Your task to perform on an android device: Search for the new ikea dresser Image 0: 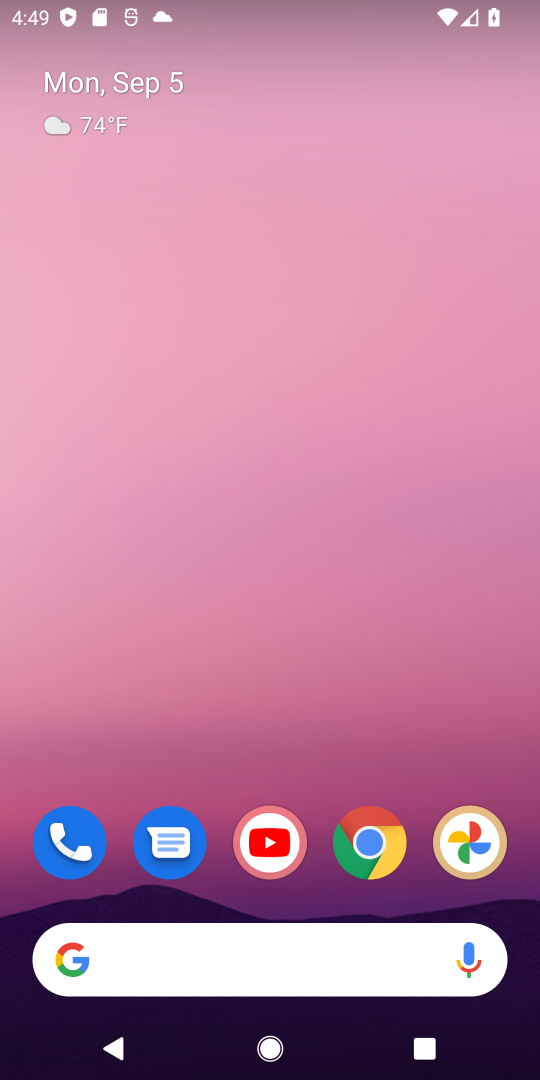
Step 0: click (367, 844)
Your task to perform on an android device: Search for the new ikea dresser Image 1: 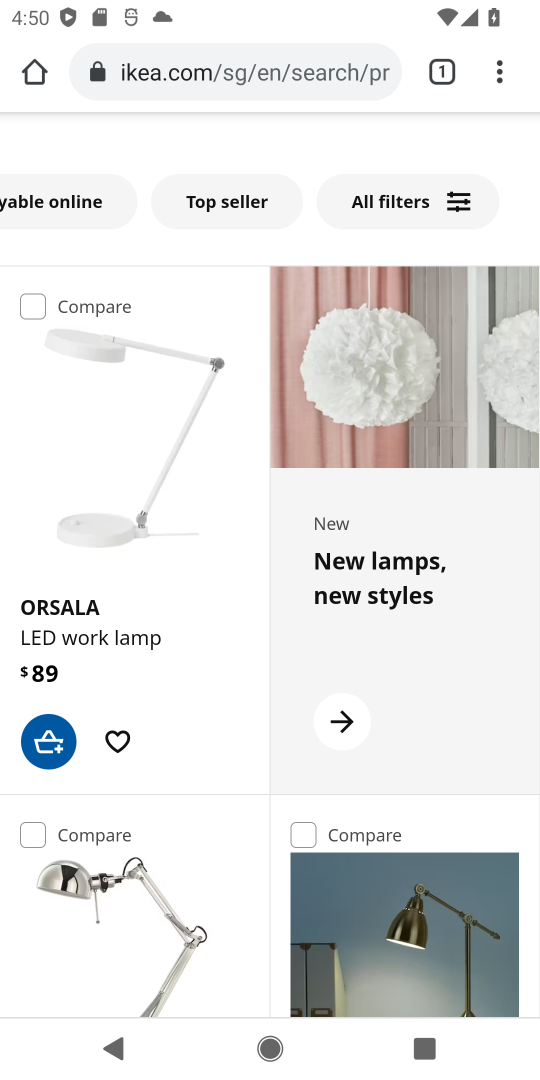
Step 1: click (332, 63)
Your task to perform on an android device: Search for the new ikea dresser Image 2: 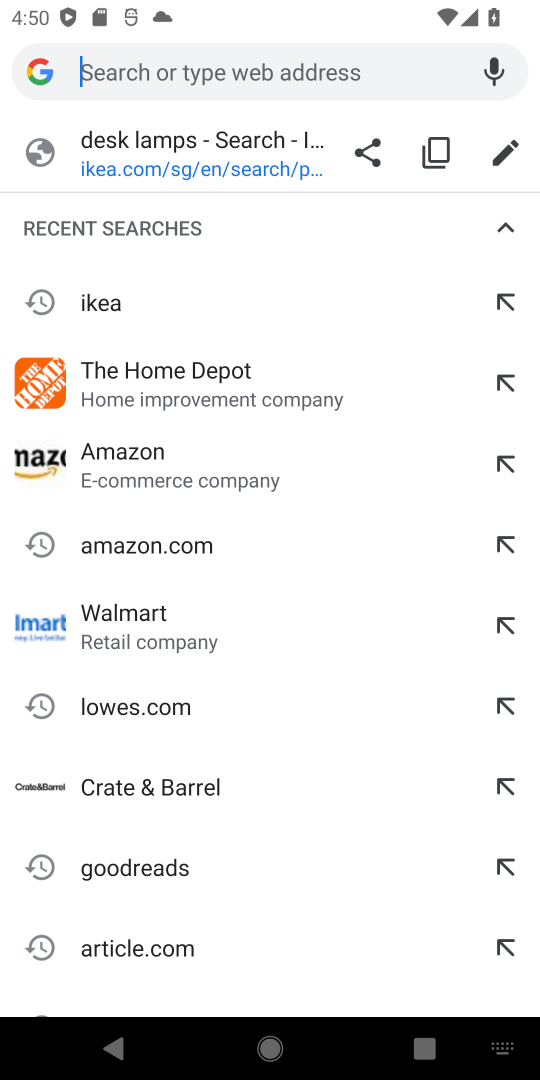
Step 2: click (283, 77)
Your task to perform on an android device: Search for the new ikea dresser Image 3: 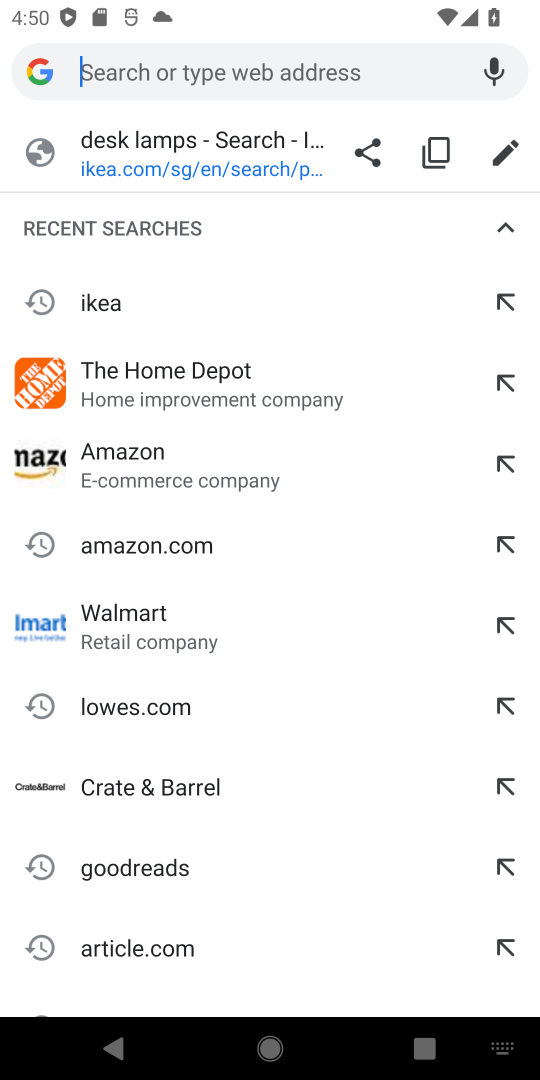
Step 3: type "new ikea dresser"
Your task to perform on an android device: Search for the new ikea dresser Image 4: 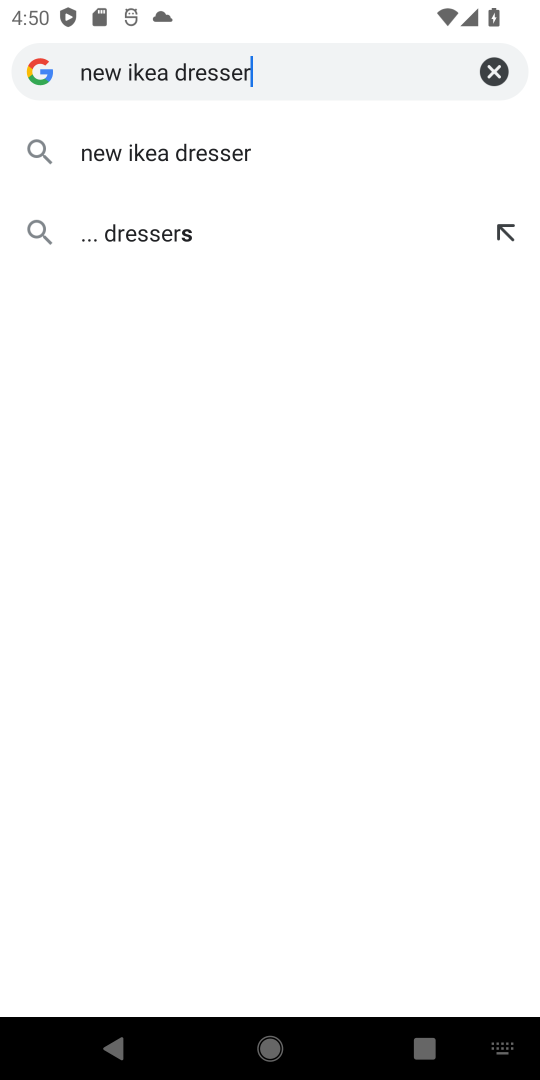
Step 4: click (209, 154)
Your task to perform on an android device: Search for the new ikea dresser Image 5: 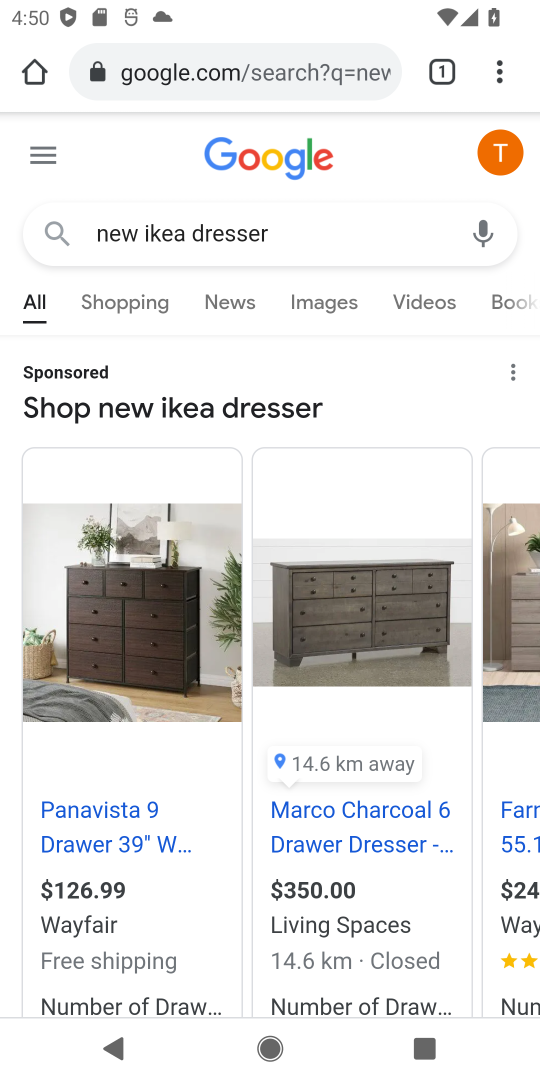
Step 5: task complete